Your task to perform on an android device: Go to ESPN.com Image 0: 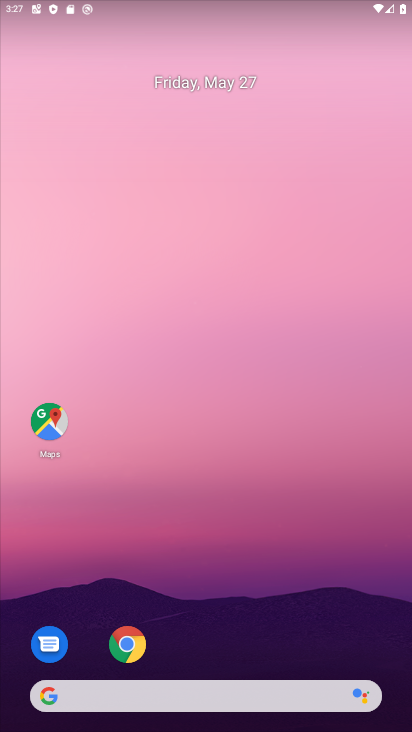
Step 0: drag from (245, 404) to (153, 57)
Your task to perform on an android device: Go to ESPN.com Image 1: 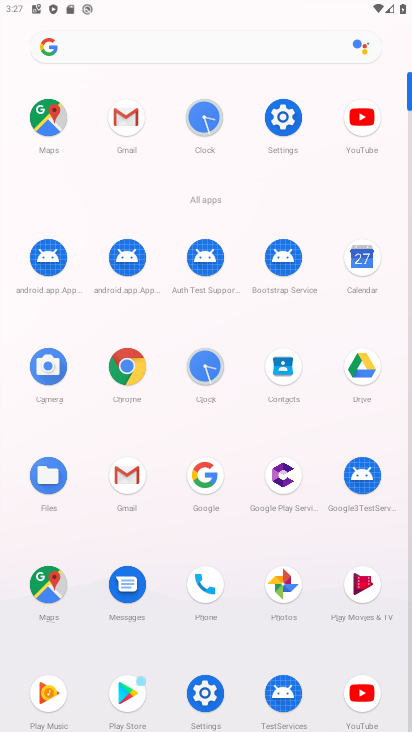
Step 1: click (122, 373)
Your task to perform on an android device: Go to ESPN.com Image 2: 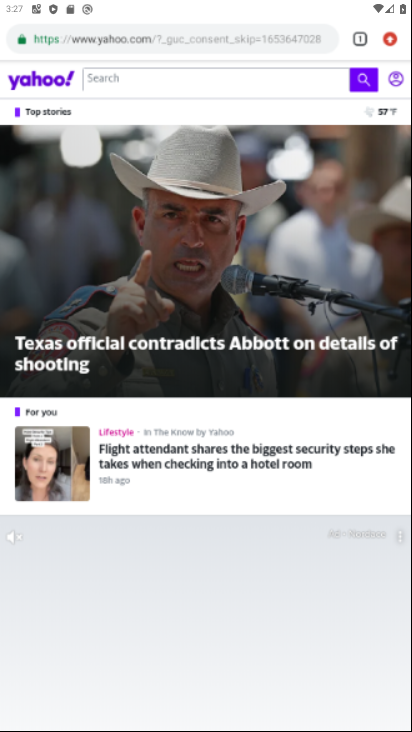
Step 2: click (354, 40)
Your task to perform on an android device: Go to ESPN.com Image 3: 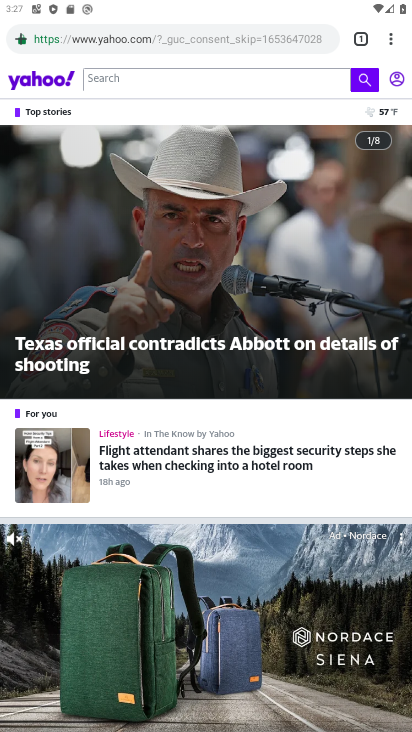
Step 3: click (22, 35)
Your task to perform on an android device: Go to ESPN.com Image 4: 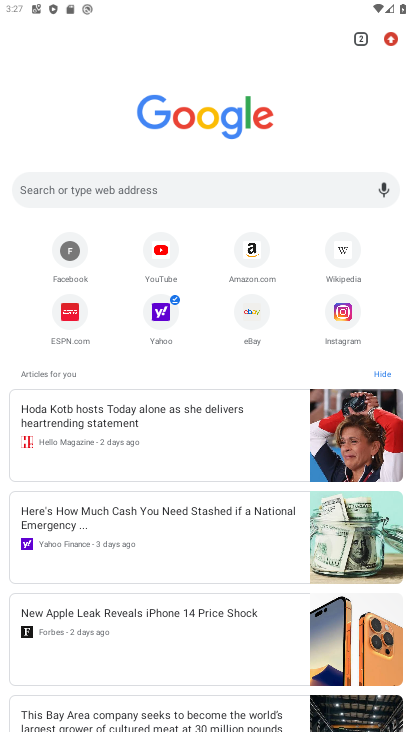
Step 4: click (77, 322)
Your task to perform on an android device: Go to ESPN.com Image 5: 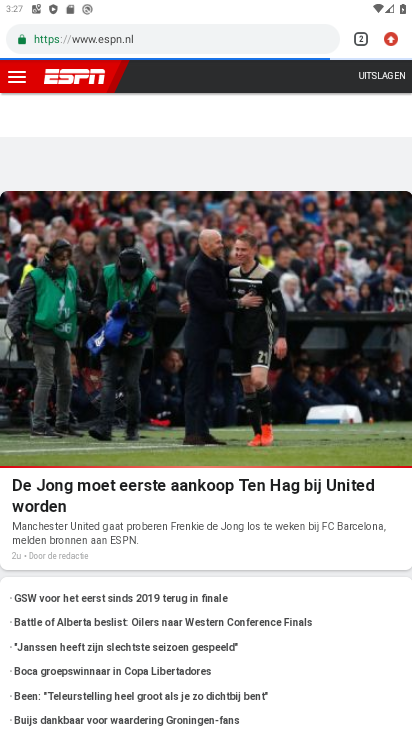
Step 5: task complete